Your task to perform on an android device: change your default location settings in chrome Image 0: 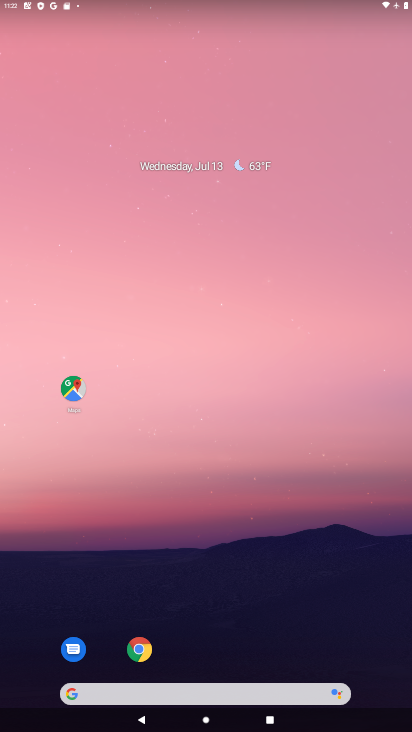
Step 0: drag from (209, 602) to (220, 265)
Your task to perform on an android device: change your default location settings in chrome Image 1: 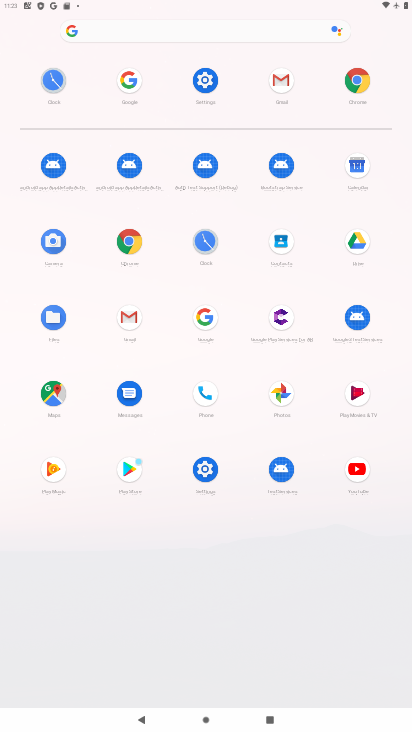
Step 1: click (353, 78)
Your task to perform on an android device: change your default location settings in chrome Image 2: 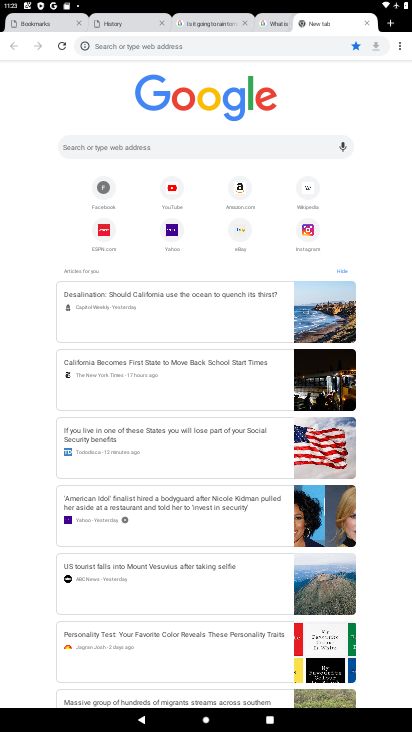
Step 2: click (400, 41)
Your task to perform on an android device: change your default location settings in chrome Image 3: 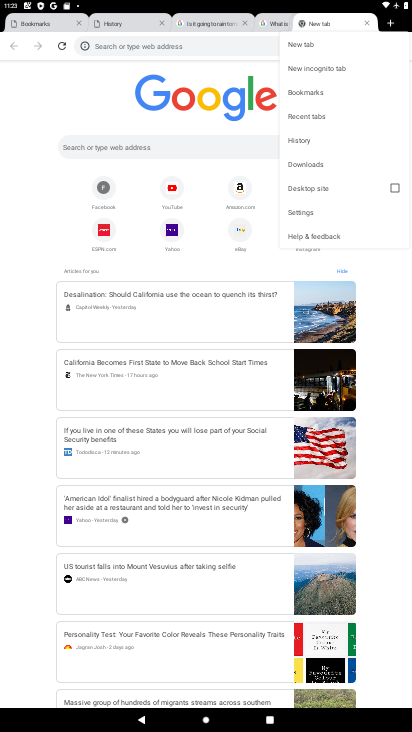
Step 3: click (301, 205)
Your task to perform on an android device: change your default location settings in chrome Image 4: 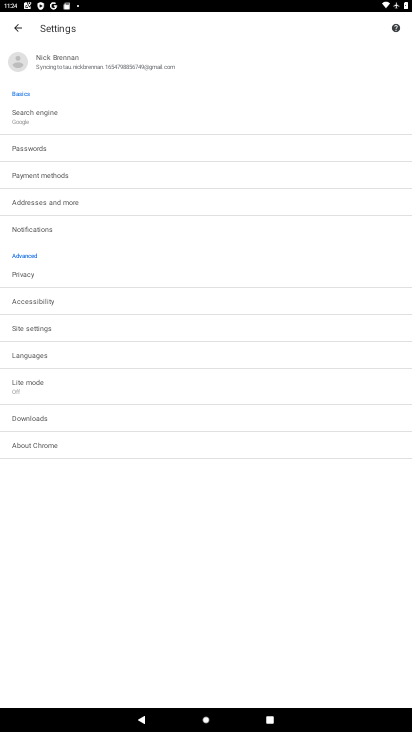
Step 4: click (68, 327)
Your task to perform on an android device: change your default location settings in chrome Image 5: 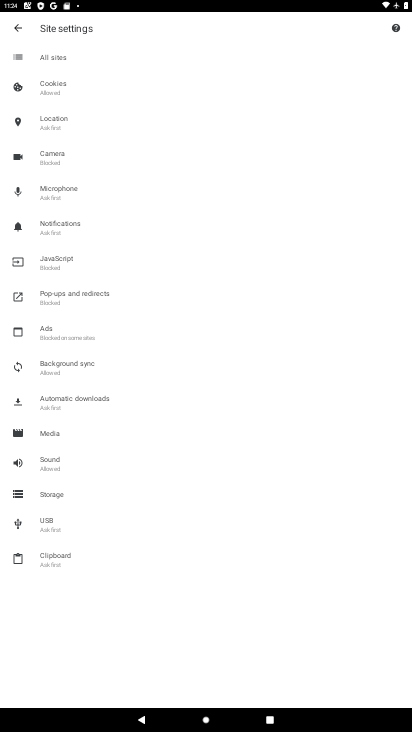
Step 5: click (64, 113)
Your task to perform on an android device: change your default location settings in chrome Image 6: 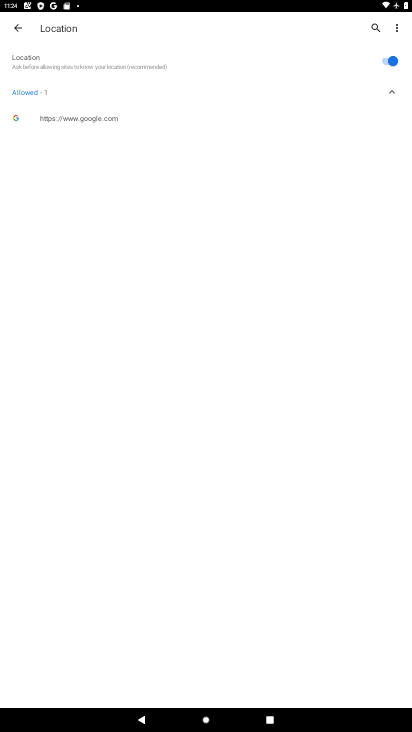
Step 6: click (381, 55)
Your task to perform on an android device: change your default location settings in chrome Image 7: 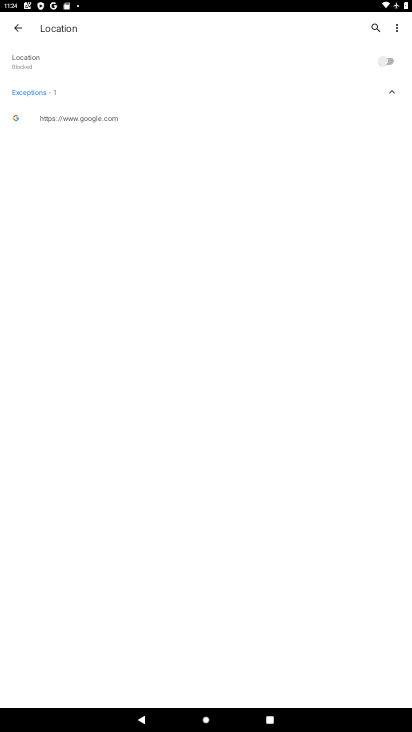
Step 7: task complete